Your task to perform on an android device: Open maps Image 0: 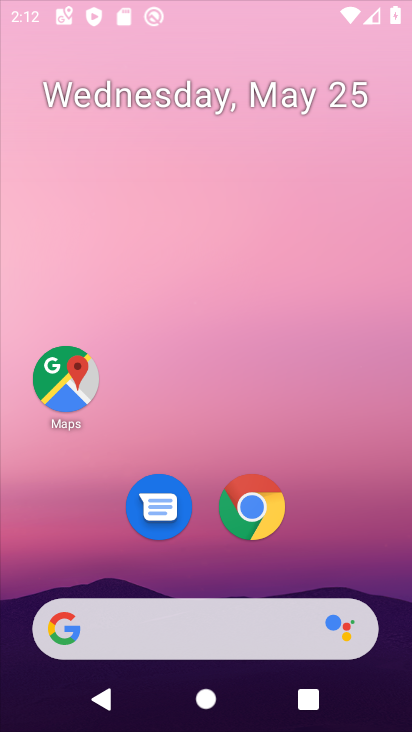
Step 0: drag from (200, 663) to (230, 202)
Your task to perform on an android device: Open maps Image 1: 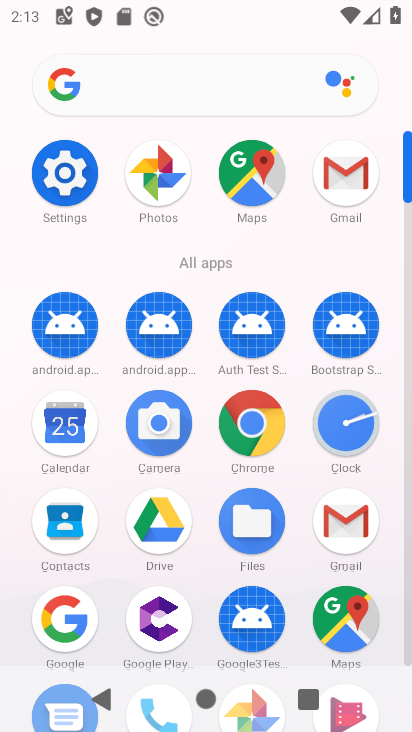
Step 1: drag from (215, 423) to (230, 146)
Your task to perform on an android device: Open maps Image 2: 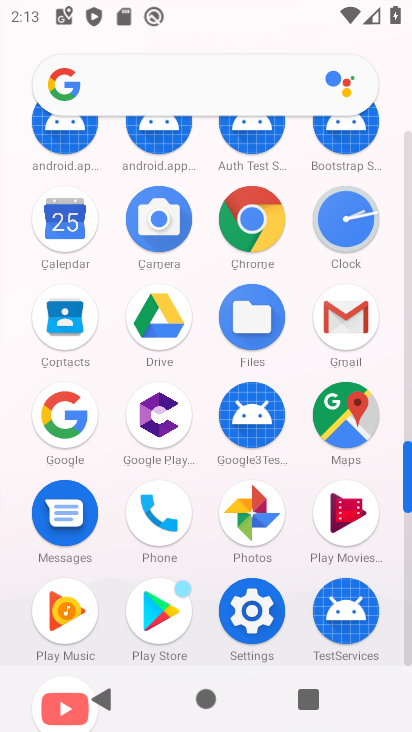
Step 2: drag from (235, 302) to (276, 646)
Your task to perform on an android device: Open maps Image 3: 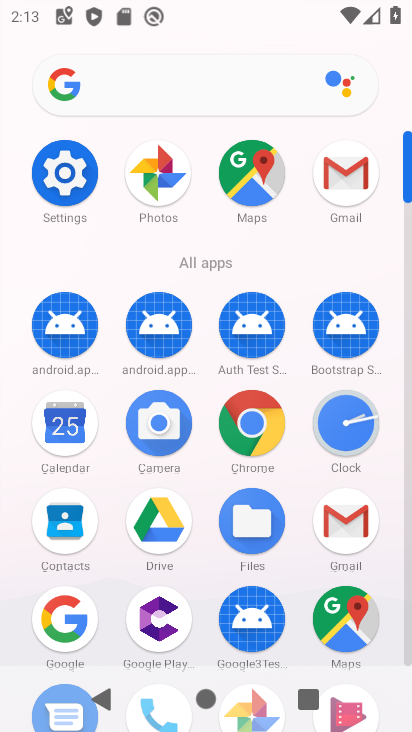
Step 3: drag from (229, 465) to (270, 99)
Your task to perform on an android device: Open maps Image 4: 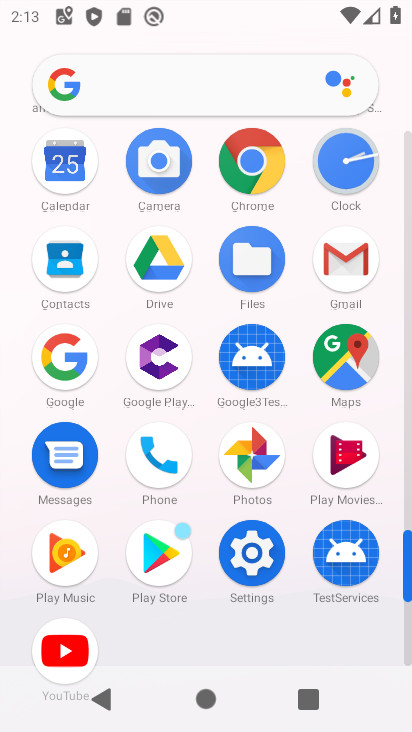
Step 4: click (355, 348)
Your task to perform on an android device: Open maps Image 5: 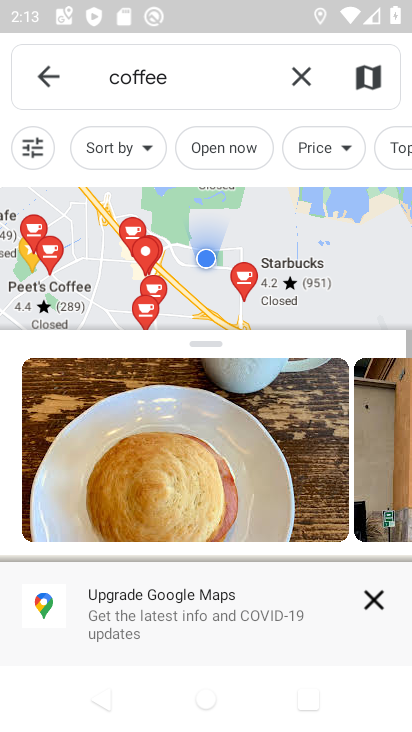
Step 5: click (303, 77)
Your task to perform on an android device: Open maps Image 6: 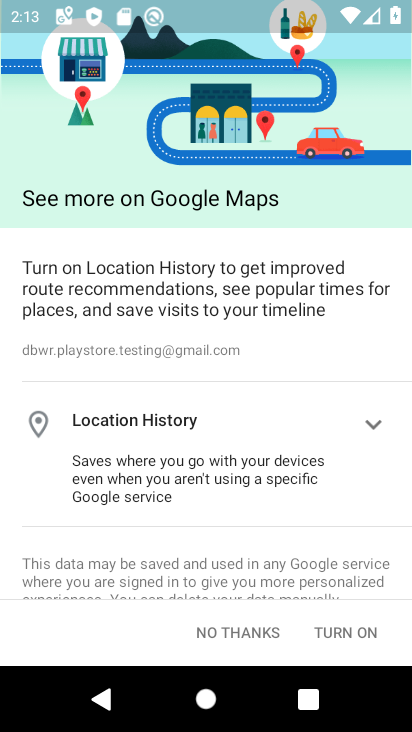
Step 6: task complete